Your task to perform on an android device: turn off wifi Image 0: 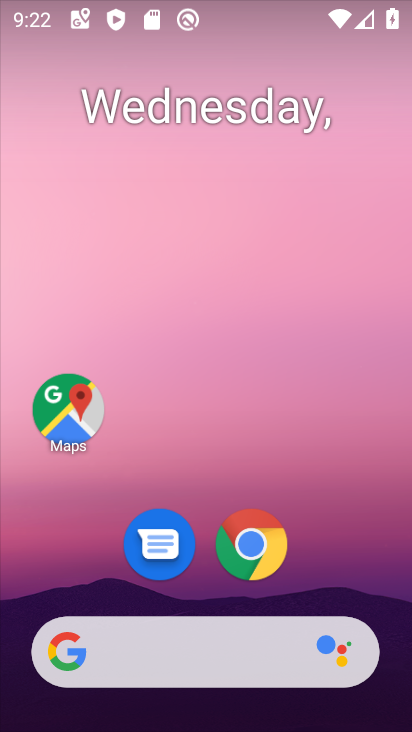
Step 0: drag from (257, 4) to (42, 690)
Your task to perform on an android device: turn off wifi Image 1: 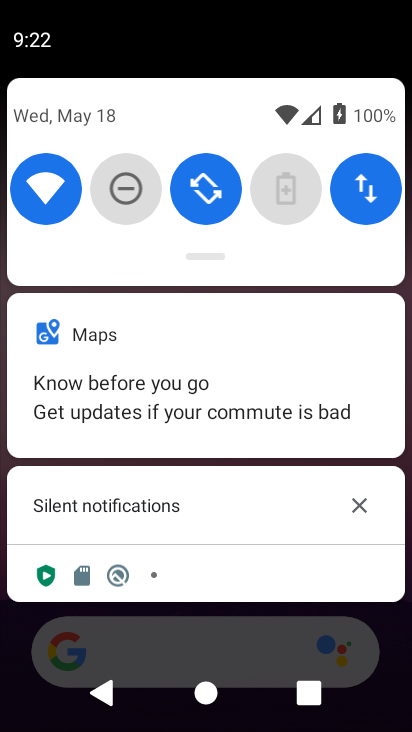
Step 1: click (28, 200)
Your task to perform on an android device: turn off wifi Image 2: 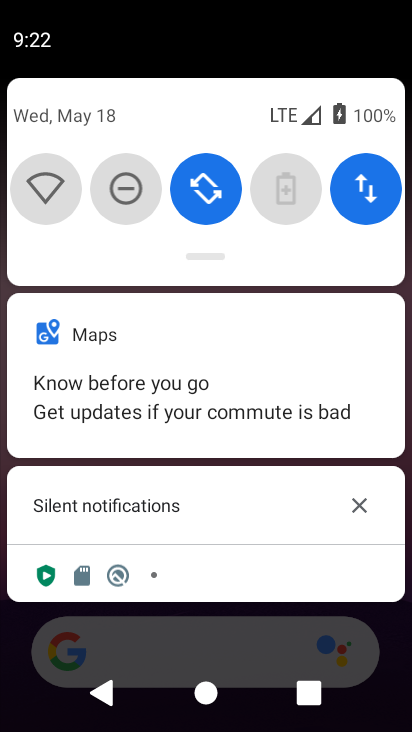
Step 2: task complete